Your task to perform on an android device: Open eBay Image 0: 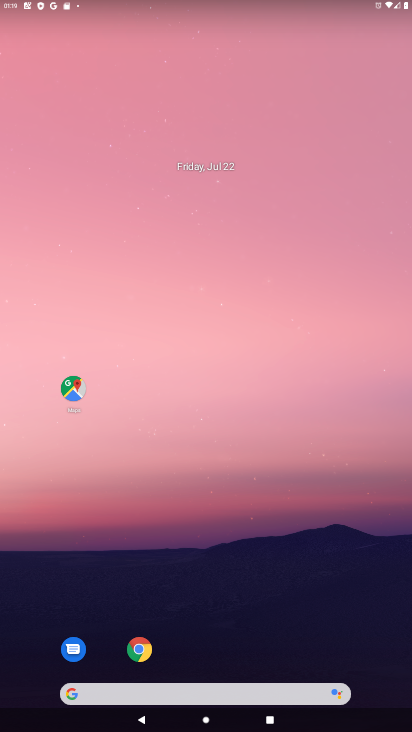
Step 0: drag from (337, 613) to (348, 65)
Your task to perform on an android device: Open eBay Image 1: 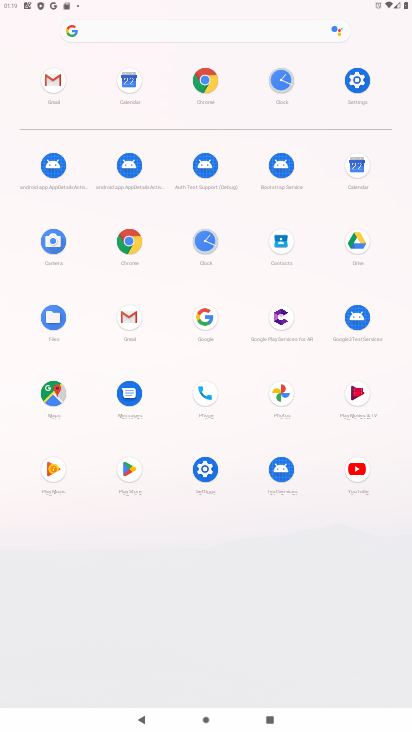
Step 1: click (203, 80)
Your task to perform on an android device: Open eBay Image 2: 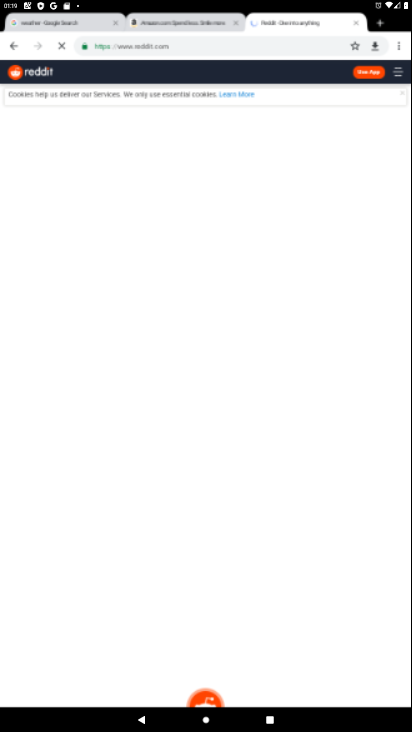
Step 2: click (218, 50)
Your task to perform on an android device: Open eBay Image 3: 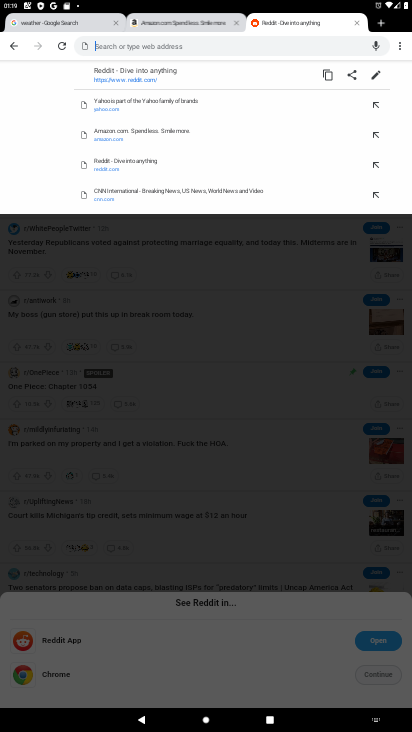
Step 3: type "ebay"
Your task to perform on an android device: Open eBay Image 4: 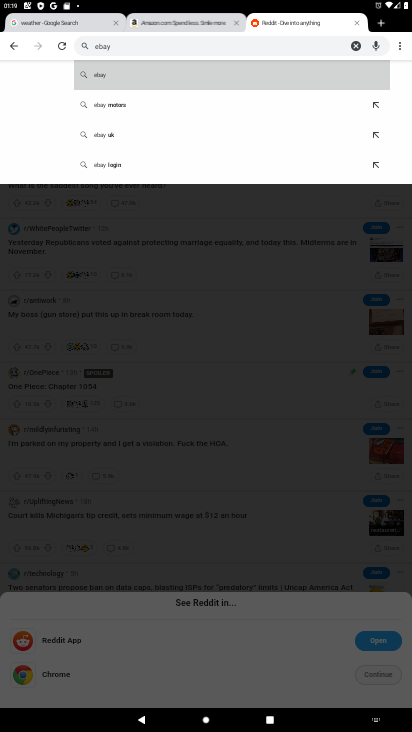
Step 4: click (145, 75)
Your task to perform on an android device: Open eBay Image 5: 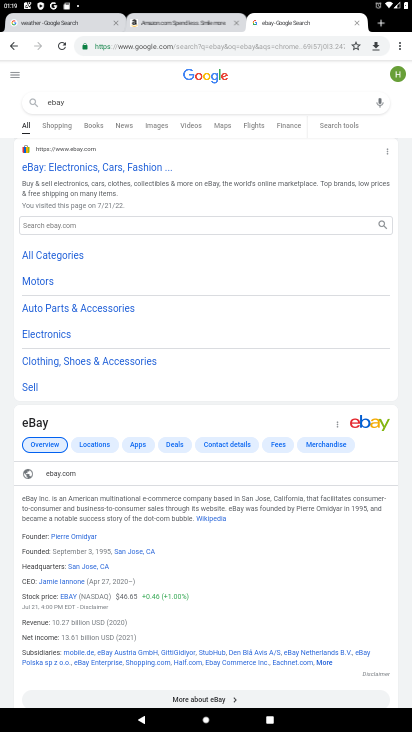
Step 5: click (82, 166)
Your task to perform on an android device: Open eBay Image 6: 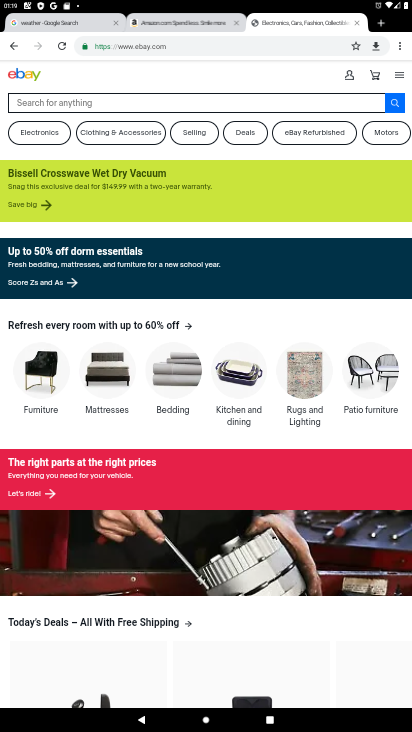
Step 6: task complete